Your task to perform on an android device: open chrome privacy settings Image 0: 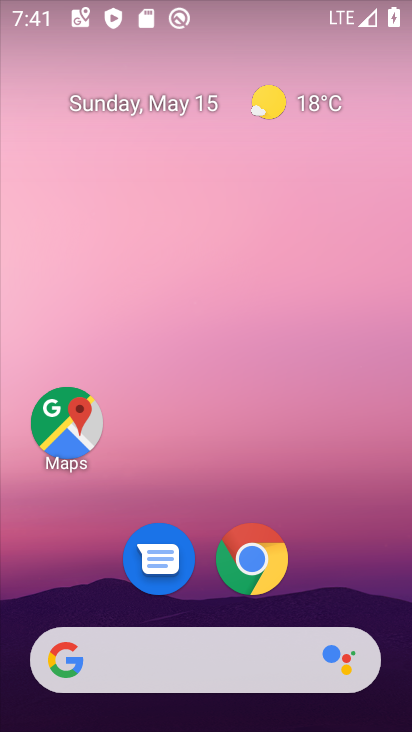
Step 0: click (249, 559)
Your task to perform on an android device: open chrome privacy settings Image 1: 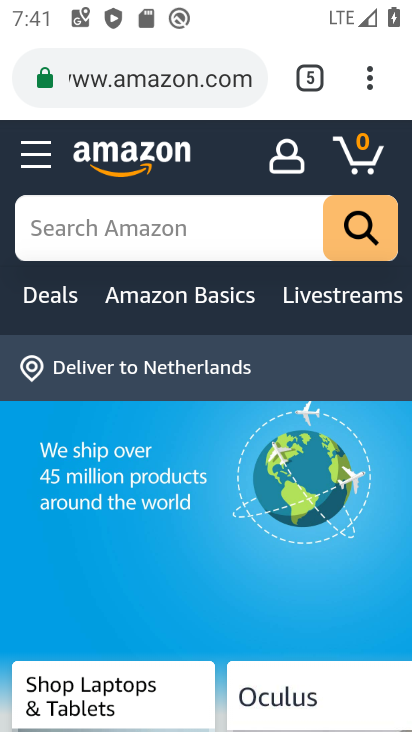
Step 1: click (371, 80)
Your task to perform on an android device: open chrome privacy settings Image 2: 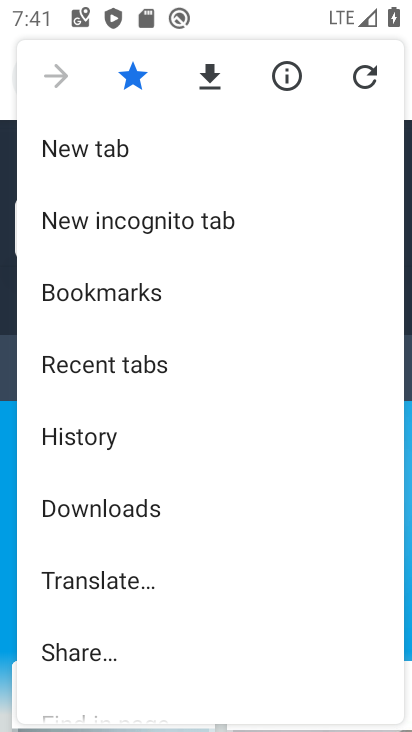
Step 2: drag from (249, 527) to (183, 217)
Your task to perform on an android device: open chrome privacy settings Image 3: 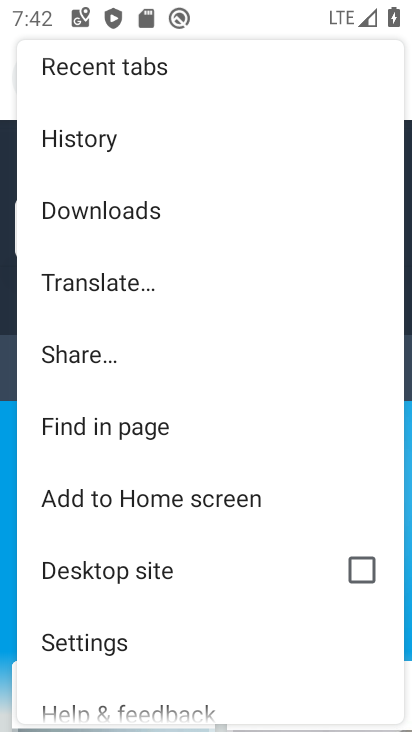
Step 3: click (103, 631)
Your task to perform on an android device: open chrome privacy settings Image 4: 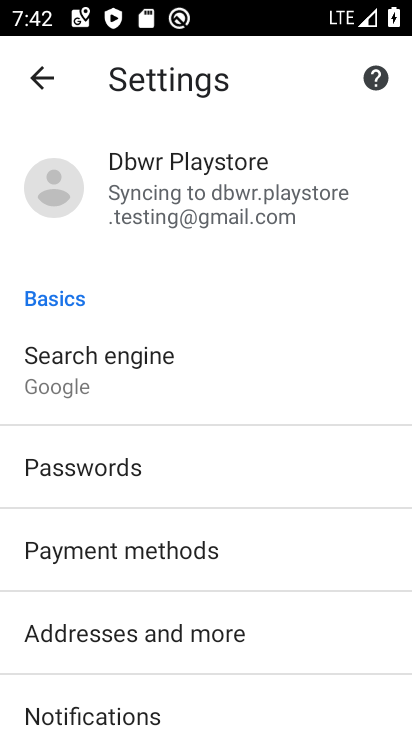
Step 4: drag from (245, 596) to (215, 378)
Your task to perform on an android device: open chrome privacy settings Image 5: 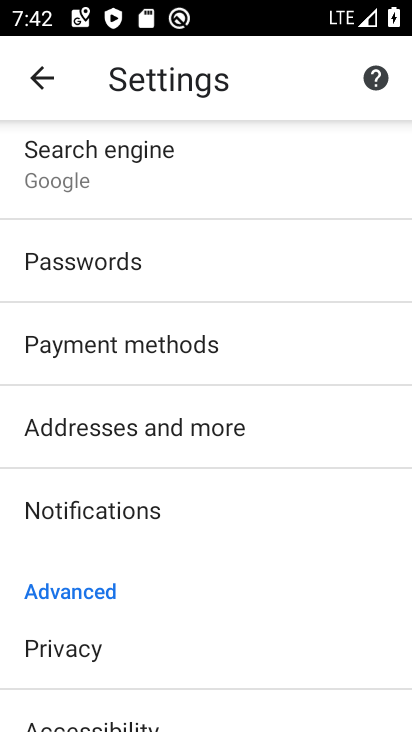
Step 5: drag from (150, 559) to (121, 397)
Your task to perform on an android device: open chrome privacy settings Image 6: 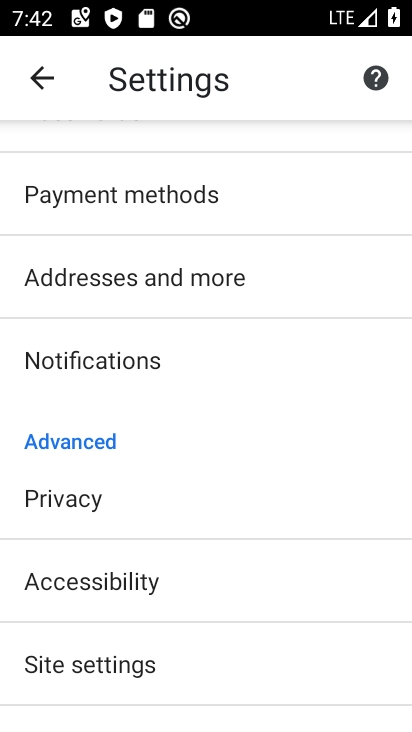
Step 6: click (76, 499)
Your task to perform on an android device: open chrome privacy settings Image 7: 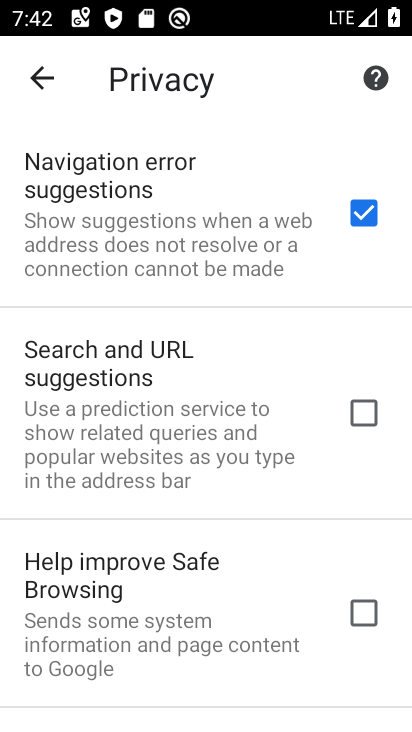
Step 7: task complete